Your task to perform on an android device: turn off data saver in the chrome app Image 0: 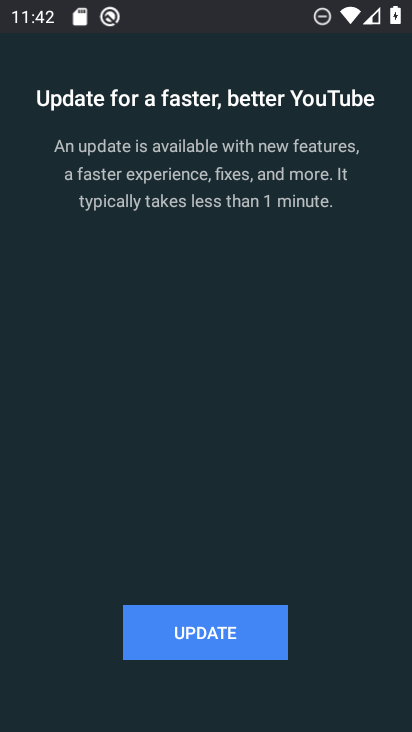
Step 0: press home button
Your task to perform on an android device: turn off data saver in the chrome app Image 1: 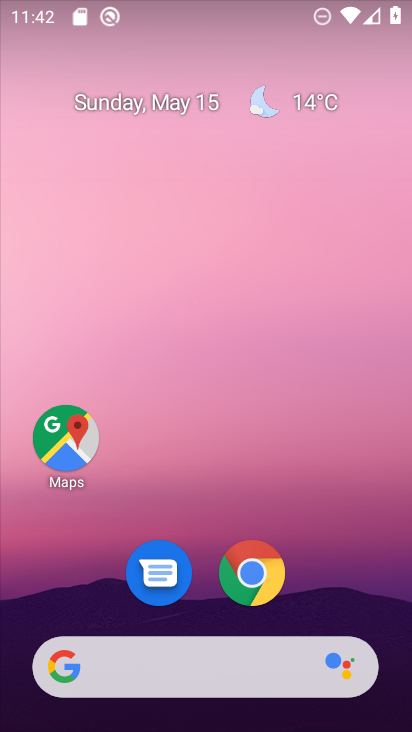
Step 1: click (256, 569)
Your task to perform on an android device: turn off data saver in the chrome app Image 2: 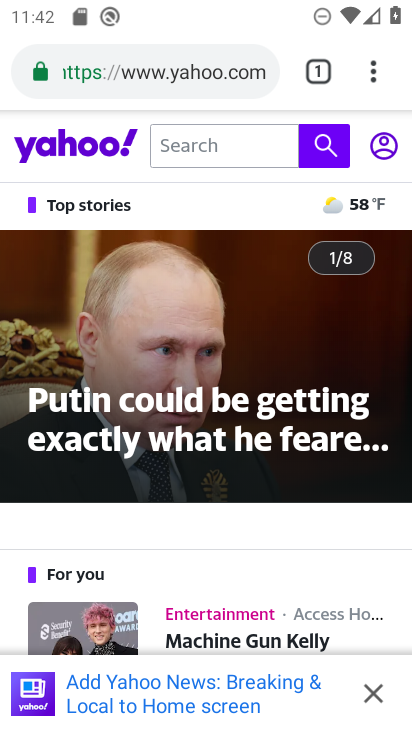
Step 2: click (365, 70)
Your task to perform on an android device: turn off data saver in the chrome app Image 3: 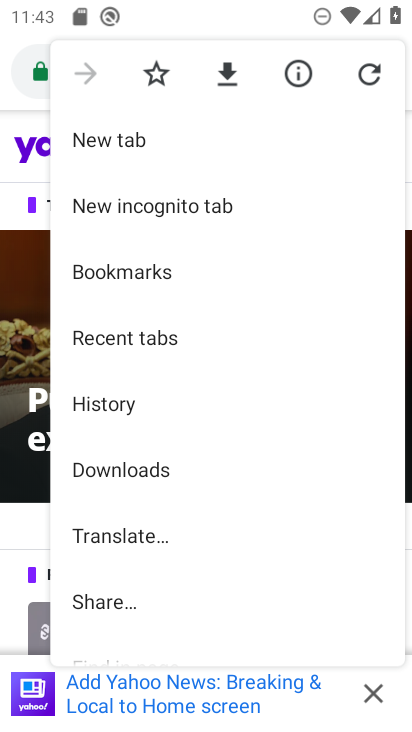
Step 3: drag from (242, 537) to (167, 250)
Your task to perform on an android device: turn off data saver in the chrome app Image 4: 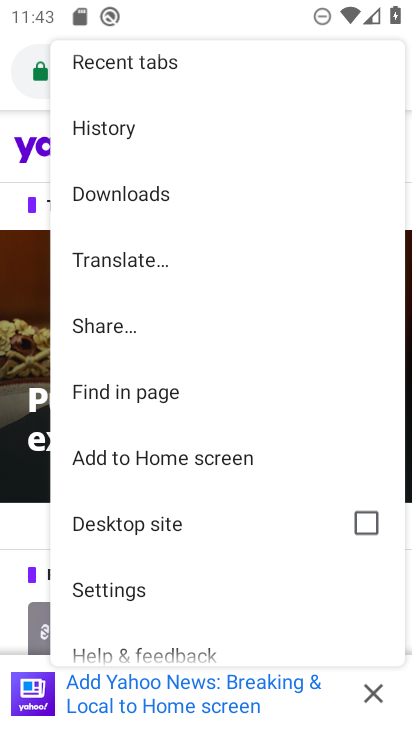
Step 4: click (117, 586)
Your task to perform on an android device: turn off data saver in the chrome app Image 5: 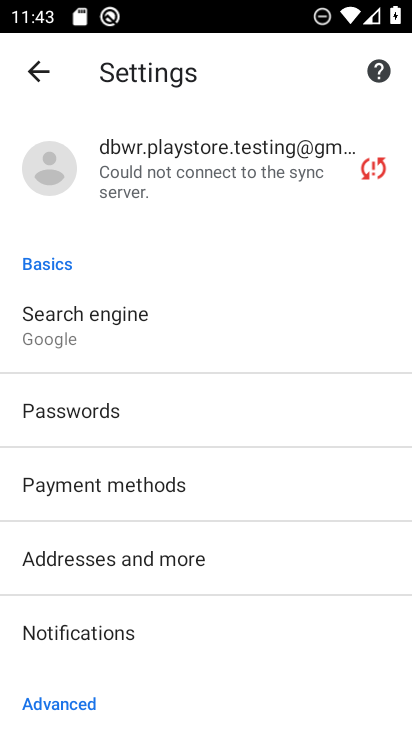
Step 5: drag from (215, 522) to (94, 216)
Your task to perform on an android device: turn off data saver in the chrome app Image 6: 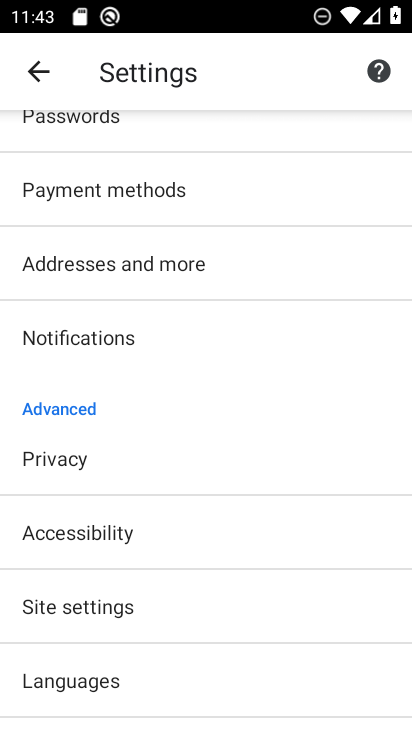
Step 6: drag from (140, 533) to (89, 324)
Your task to perform on an android device: turn off data saver in the chrome app Image 7: 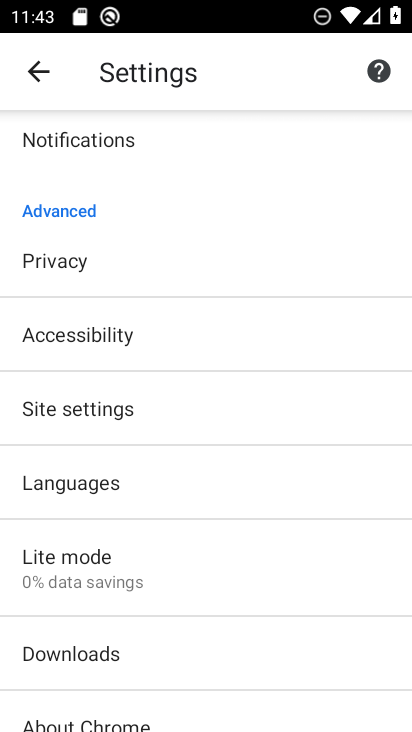
Step 7: click (85, 559)
Your task to perform on an android device: turn off data saver in the chrome app Image 8: 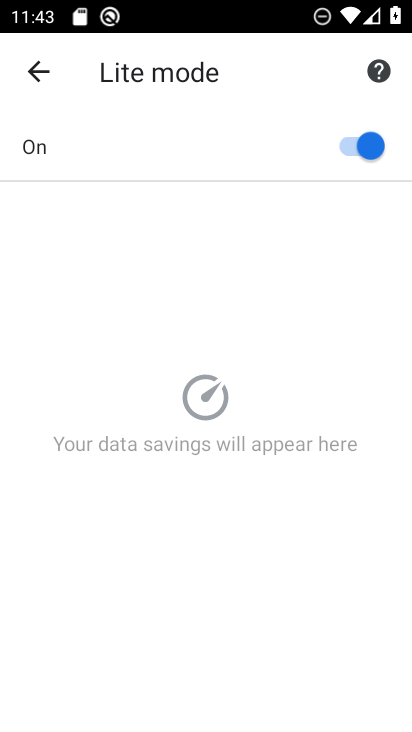
Step 8: click (366, 150)
Your task to perform on an android device: turn off data saver in the chrome app Image 9: 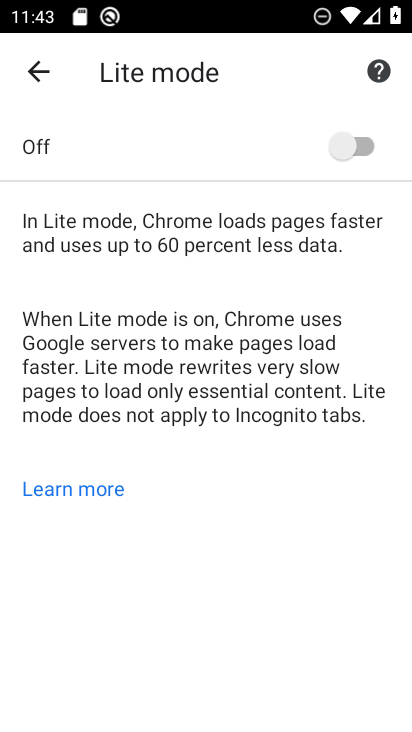
Step 9: task complete